Your task to perform on an android device: change text size in settings app Image 0: 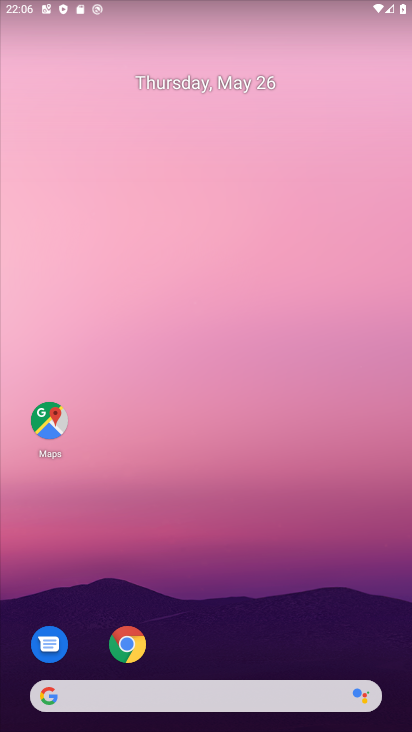
Step 0: drag from (373, 648) to (354, 94)
Your task to perform on an android device: change text size in settings app Image 1: 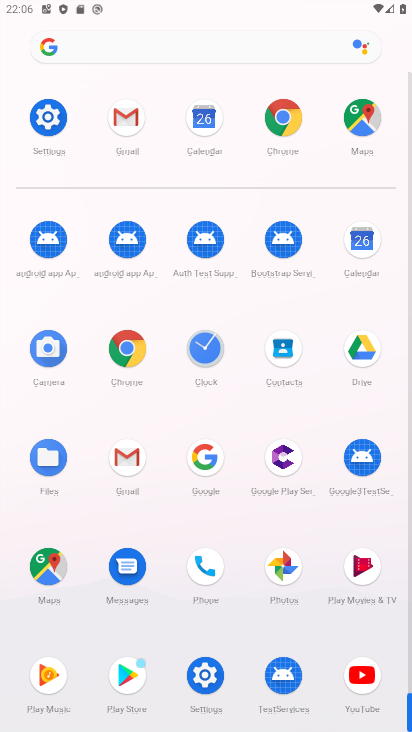
Step 1: click (210, 687)
Your task to perform on an android device: change text size in settings app Image 2: 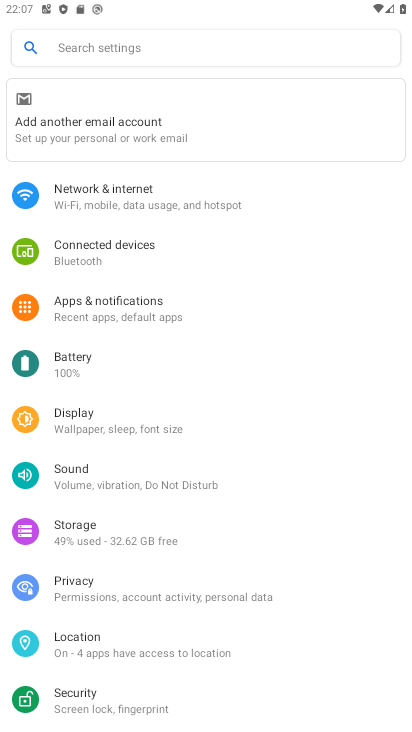
Step 2: click (183, 425)
Your task to perform on an android device: change text size in settings app Image 3: 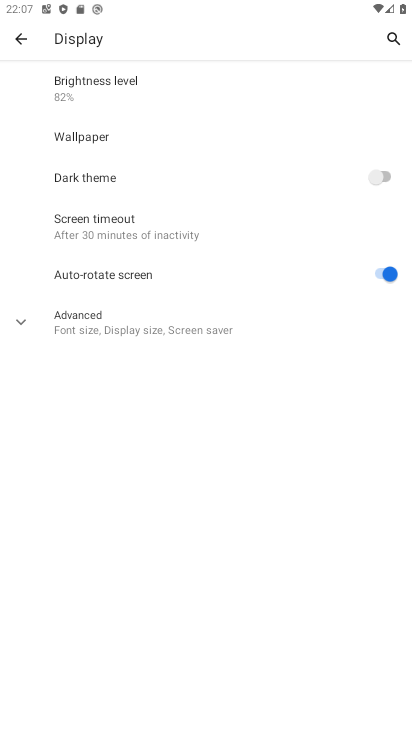
Step 3: click (182, 326)
Your task to perform on an android device: change text size in settings app Image 4: 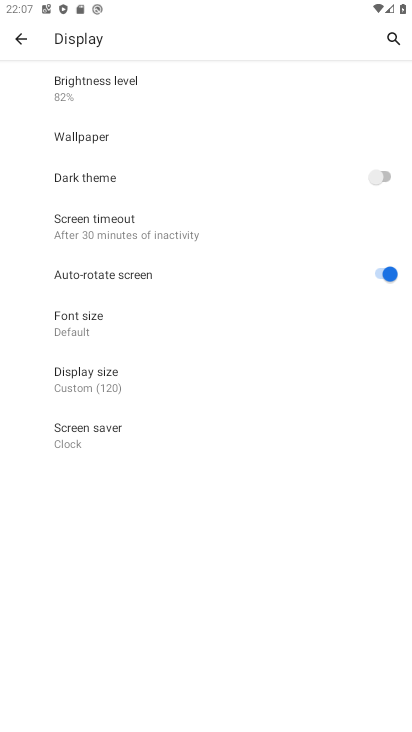
Step 4: click (99, 334)
Your task to perform on an android device: change text size in settings app Image 5: 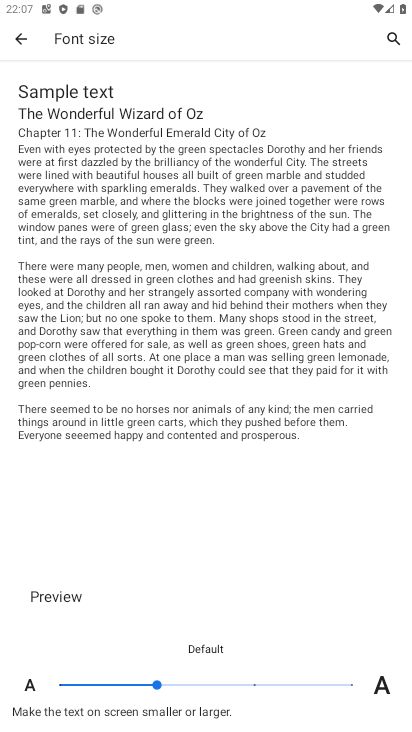
Step 5: click (212, 690)
Your task to perform on an android device: change text size in settings app Image 6: 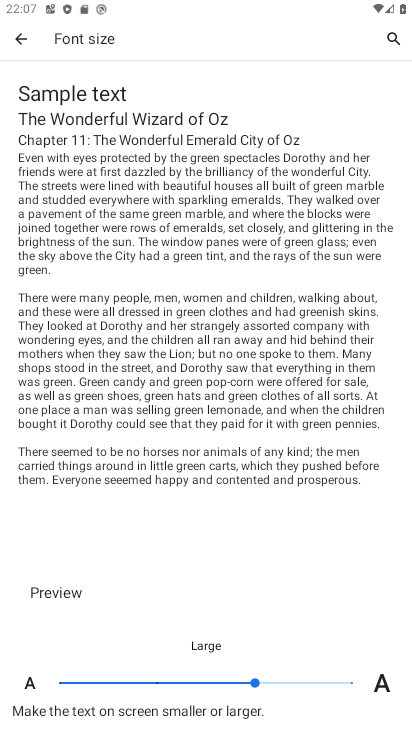
Step 6: task complete